Your task to perform on an android device: Clear the cart on newegg.com. Search for panasonic triple a on newegg.com, select the first entry, add it to the cart, then select checkout. Image 0: 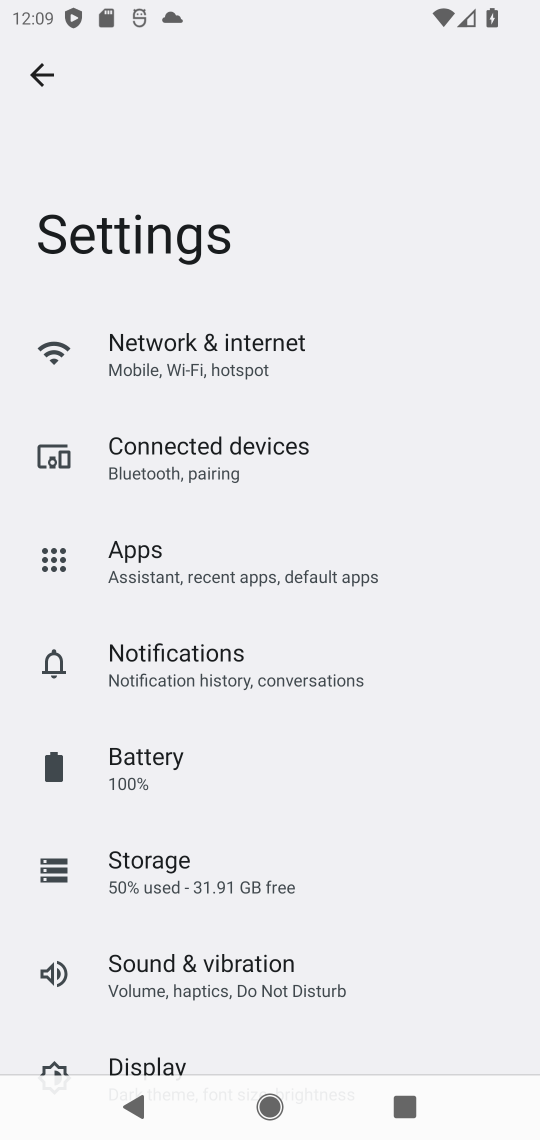
Step 0: press home button
Your task to perform on an android device: Clear the cart on newegg.com. Search for panasonic triple a on newegg.com, select the first entry, add it to the cart, then select checkout. Image 1: 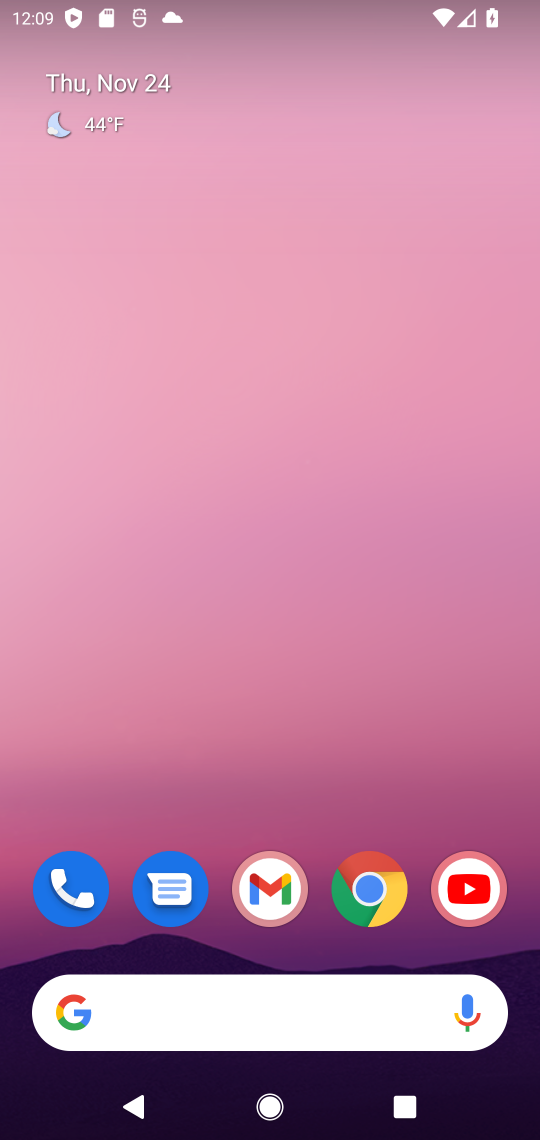
Step 1: click (365, 893)
Your task to perform on an android device: Clear the cart on newegg.com. Search for panasonic triple a on newegg.com, select the first entry, add it to the cart, then select checkout. Image 2: 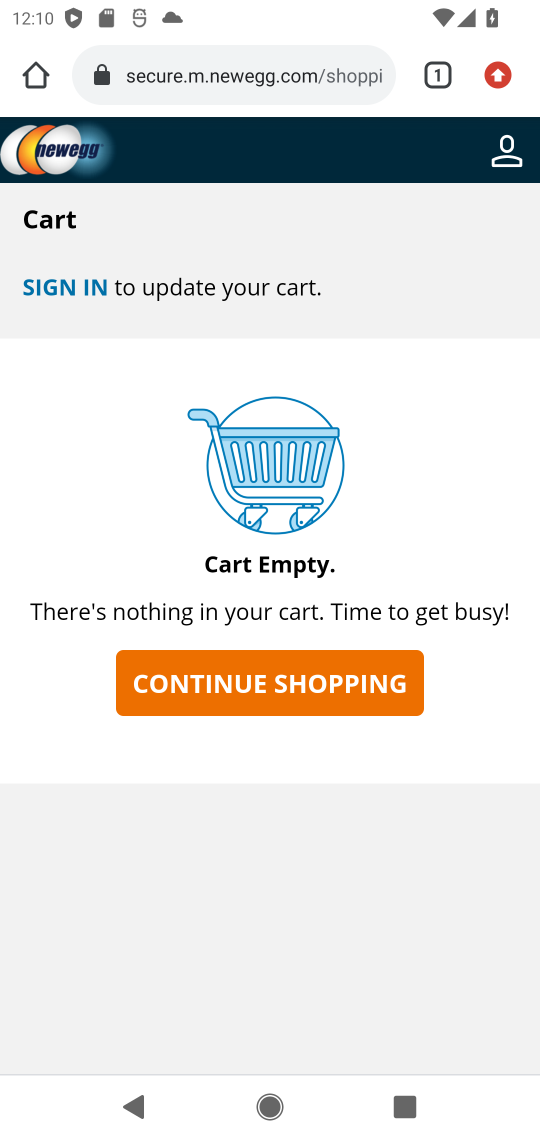
Step 2: click (253, 691)
Your task to perform on an android device: Clear the cart on newegg.com. Search for panasonic triple a on newegg.com, select the first entry, add it to the cart, then select checkout. Image 3: 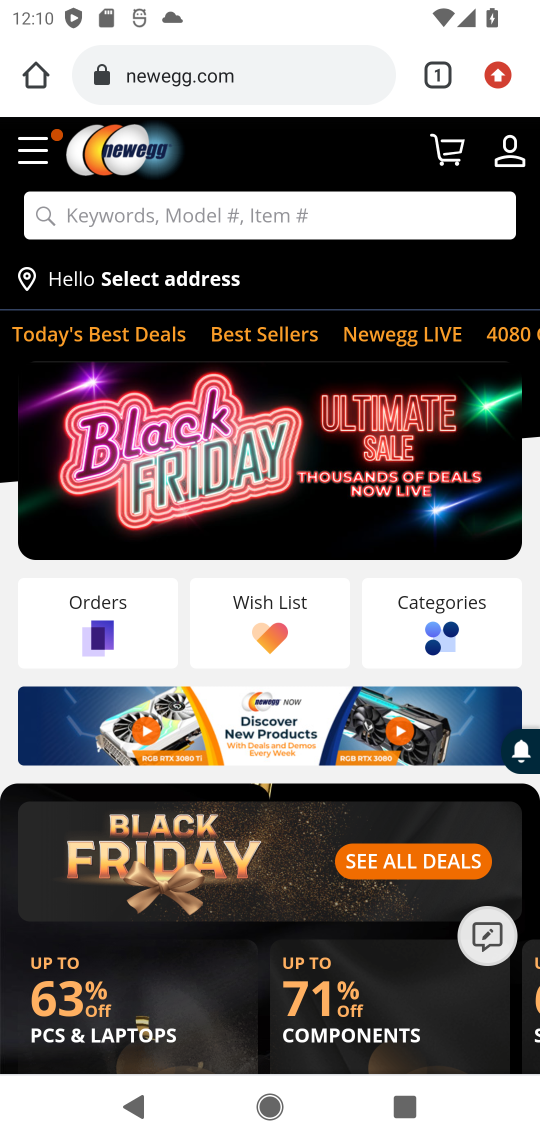
Step 3: click (144, 218)
Your task to perform on an android device: Clear the cart on newegg.com. Search for panasonic triple a on newegg.com, select the first entry, add it to the cart, then select checkout. Image 4: 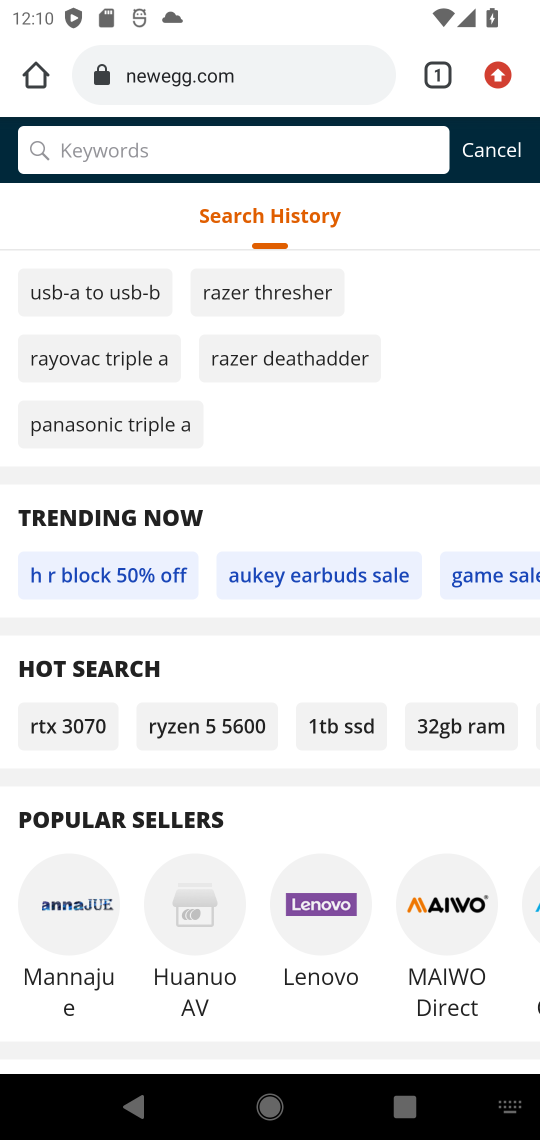
Step 4: type "panasonic triple a"
Your task to perform on an android device: Clear the cart on newegg.com. Search for panasonic triple a on newegg.com, select the first entry, add it to the cart, then select checkout. Image 5: 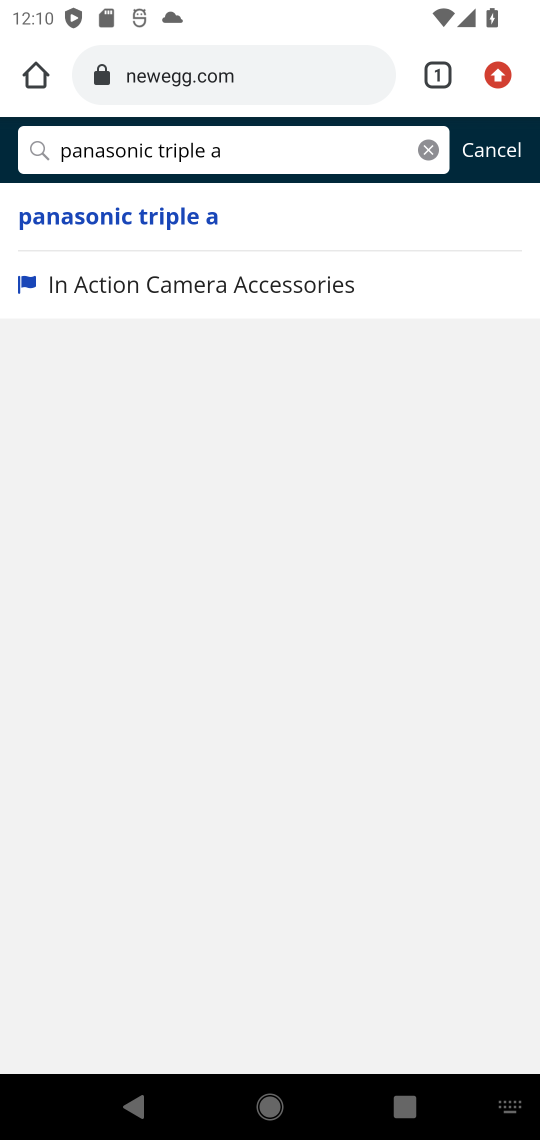
Step 5: click (174, 217)
Your task to perform on an android device: Clear the cart on newegg.com. Search for panasonic triple a on newegg.com, select the first entry, add it to the cart, then select checkout. Image 6: 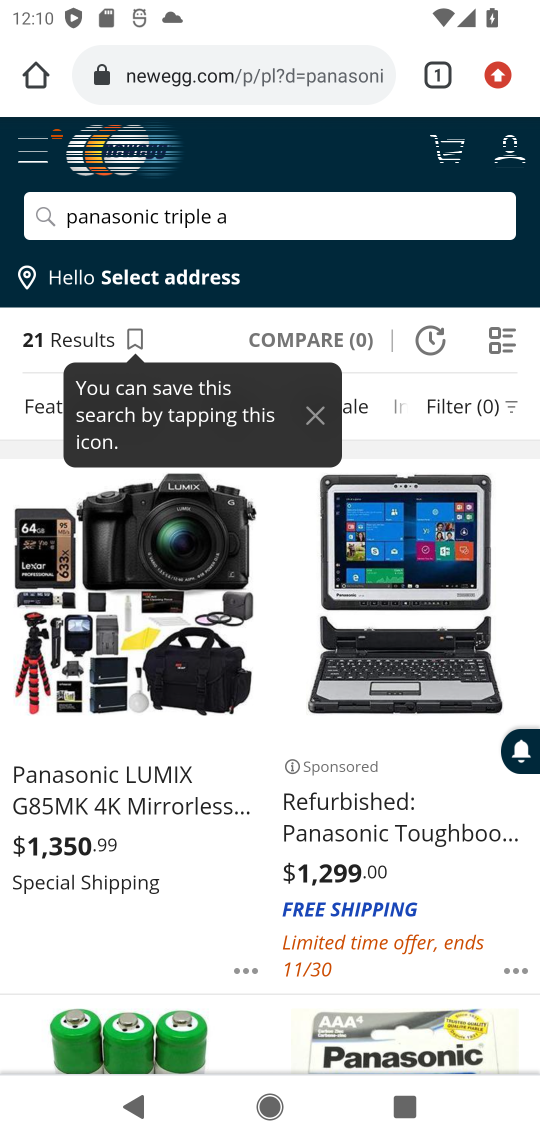
Step 6: task complete